Your task to perform on an android device: set the timer Image 0: 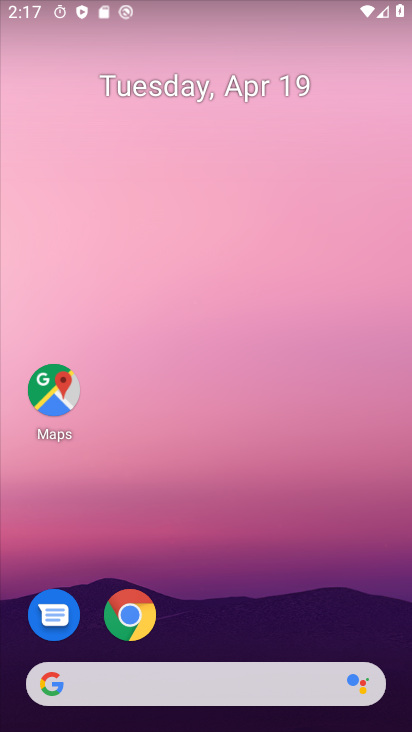
Step 0: drag from (133, 525) to (261, 70)
Your task to perform on an android device: set the timer Image 1: 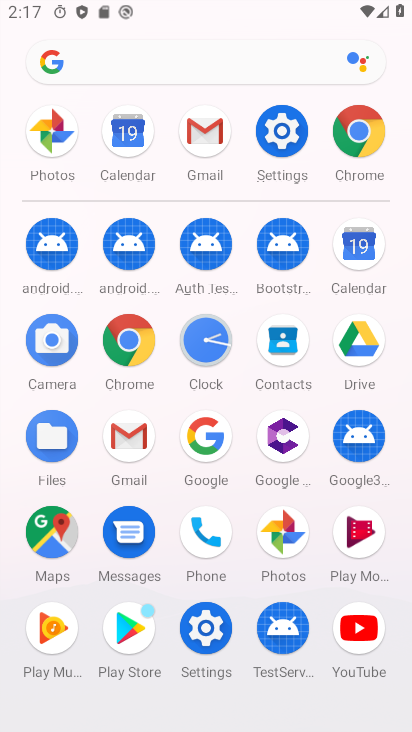
Step 1: click (210, 347)
Your task to perform on an android device: set the timer Image 2: 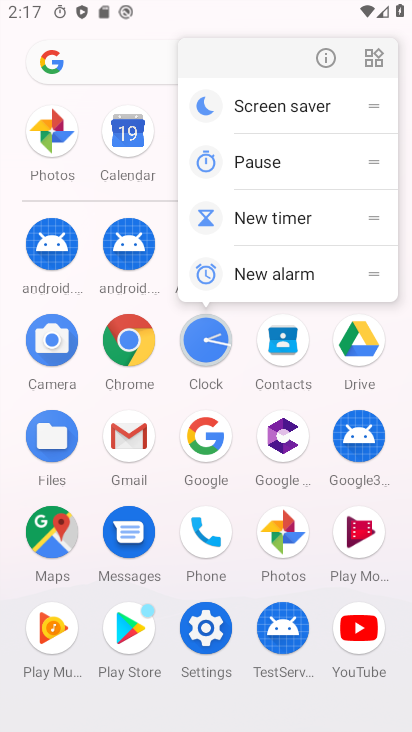
Step 2: drag from (228, 666) to (247, 364)
Your task to perform on an android device: set the timer Image 3: 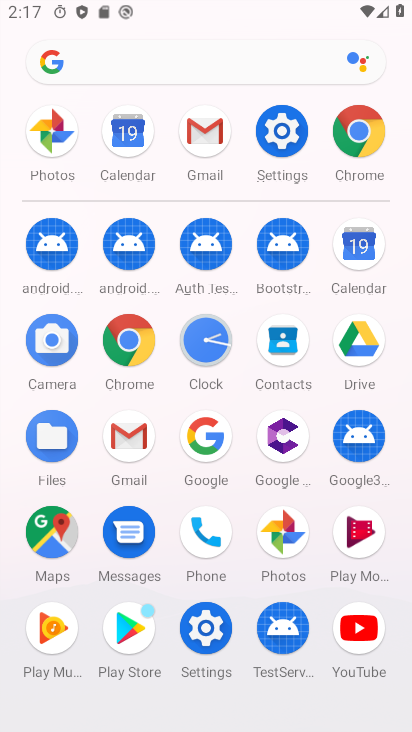
Step 3: click (205, 340)
Your task to perform on an android device: set the timer Image 4: 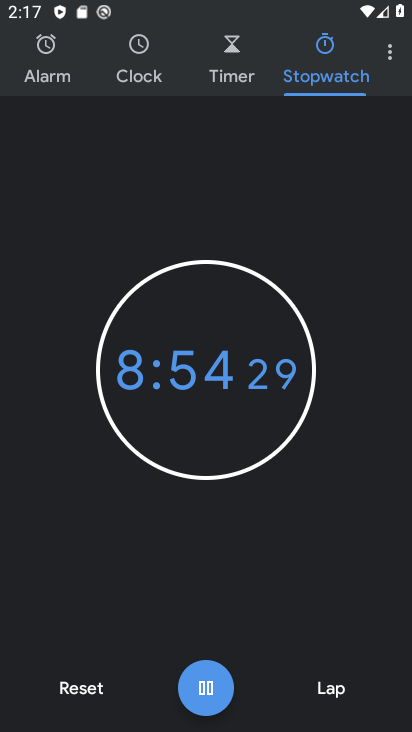
Step 4: click (229, 58)
Your task to perform on an android device: set the timer Image 5: 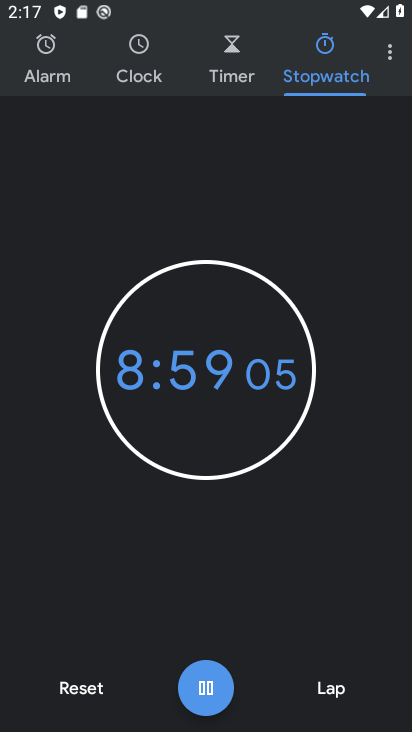
Step 5: click (75, 693)
Your task to perform on an android device: set the timer Image 6: 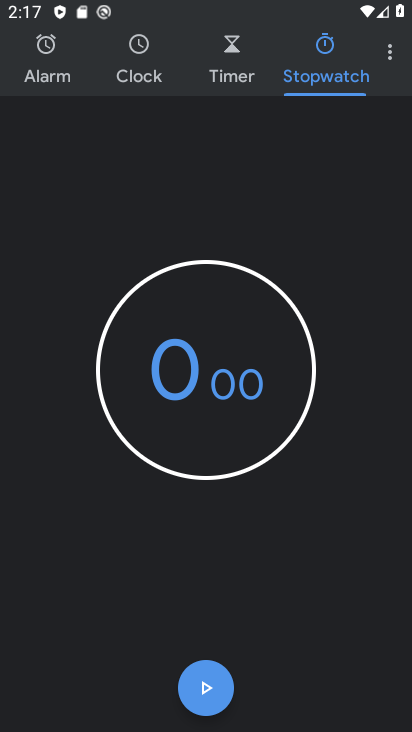
Step 6: click (230, 46)
Your task to perform on an android device: set the timer Image 7: 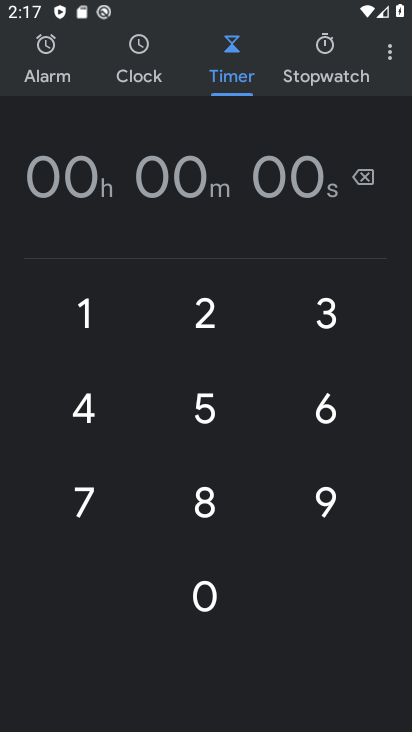
Step 7: click (199, 299)
Your task to perform on an android device: set the timer Image 8: 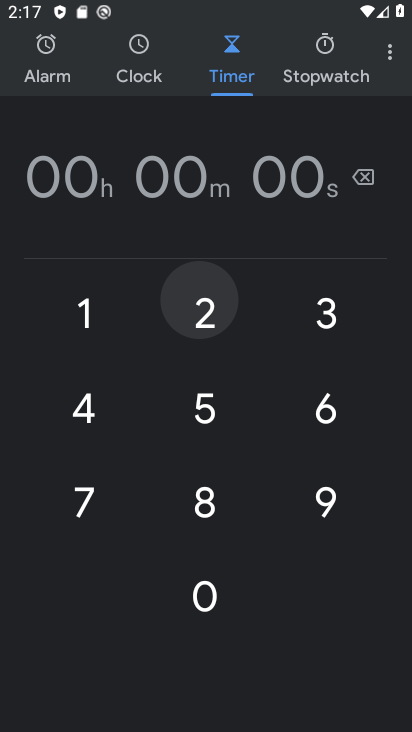
Step 8: click (341, 325)
Your task to perform on an android device: set the timer Image 9: 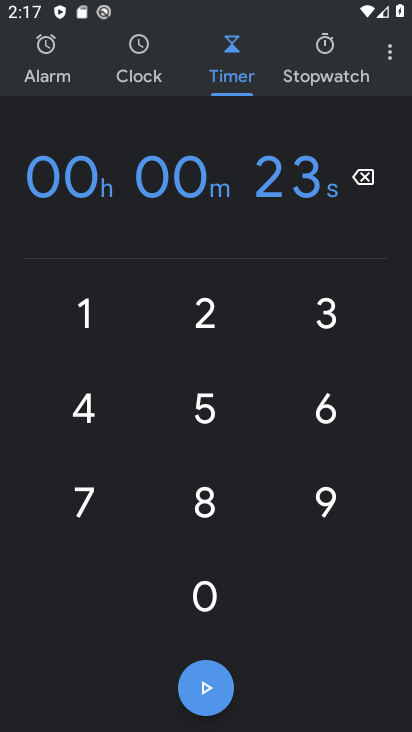
Step 9: click (357, 413)
Your task to perform on an android device: set the timer Image 10: 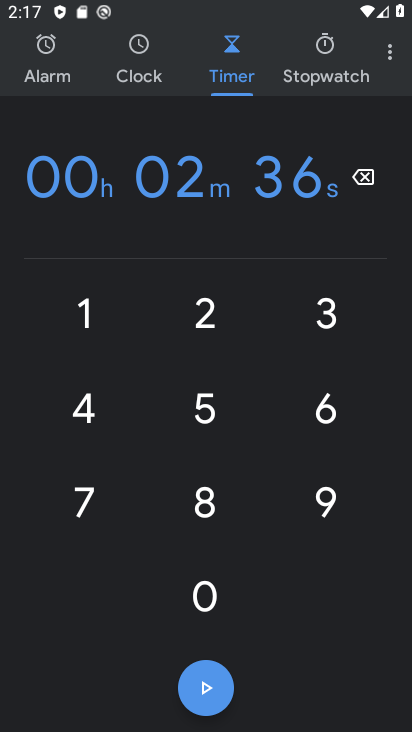
Step 10: click (201, 693)
Your task to perform on an android device: set the timer Image 11: 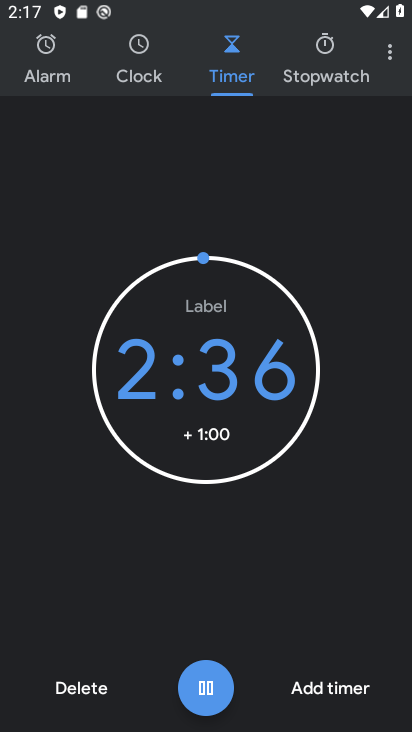
Step 11: task complete